Your task to perform on an android device: add a contact Image 0: 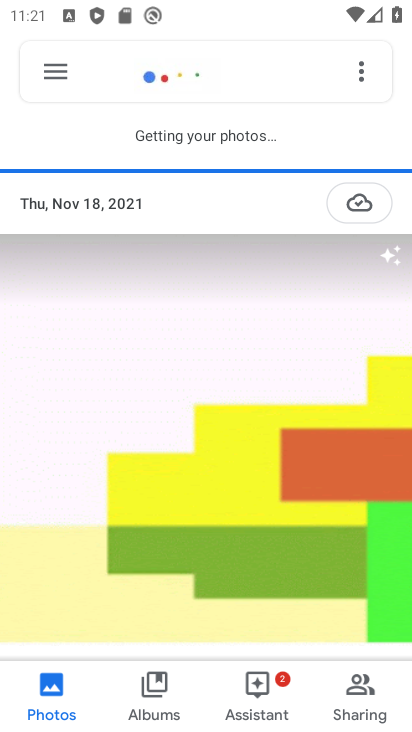
Step 0: press home button
Your task to perform on an android device: add a contact Image 1: 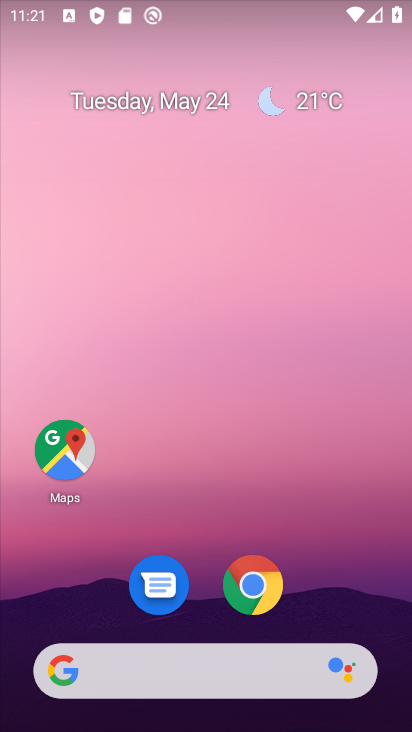
Step 1: drag from (224, 514) to (223, 2)
Your task to perform on an android device: add a contact Image 2: 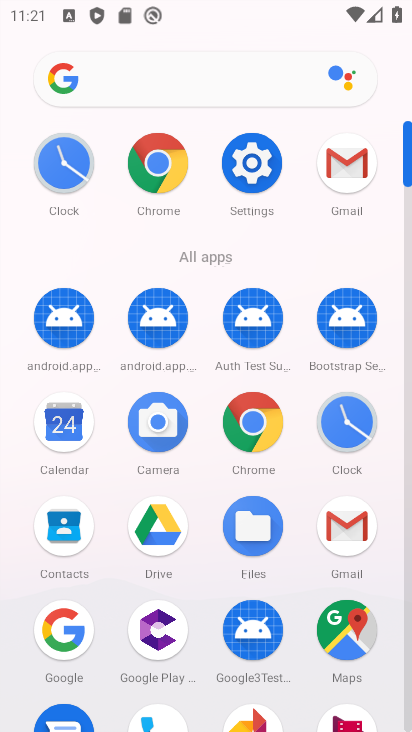
Step 2: click (65, 523)
Your task to perform on an android device: add a contact Image 3: 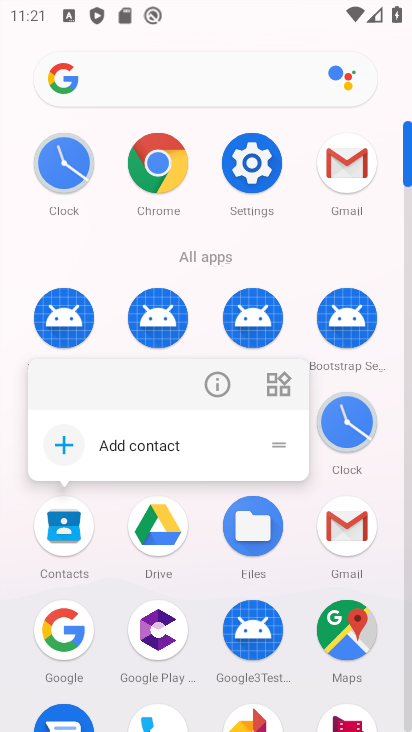
Step 3: click (65, 523)
Your task to perform on an android device: add a contact Image 4: 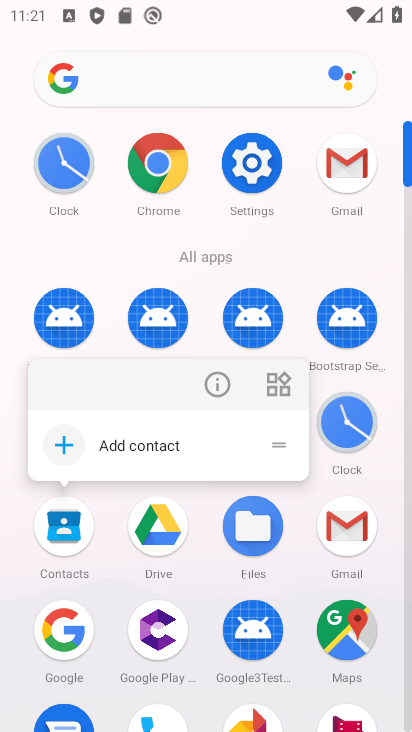
Step 4: click (65, 523)
Your task to perform on an android device: add a contact Image 5: 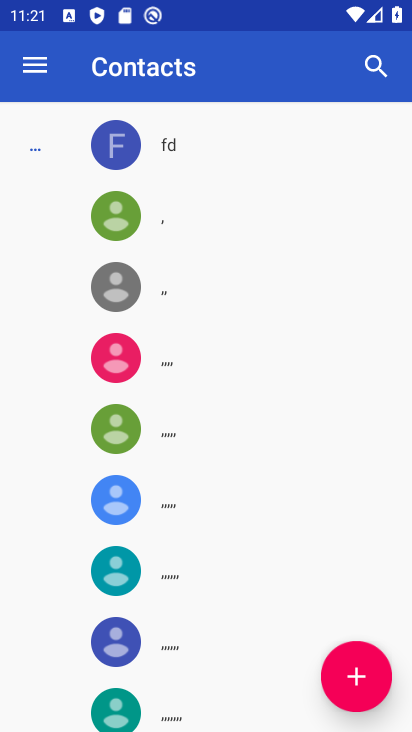
Step 5: click (373, 673)
Your task to perform on an android device: add a contact Image 6: 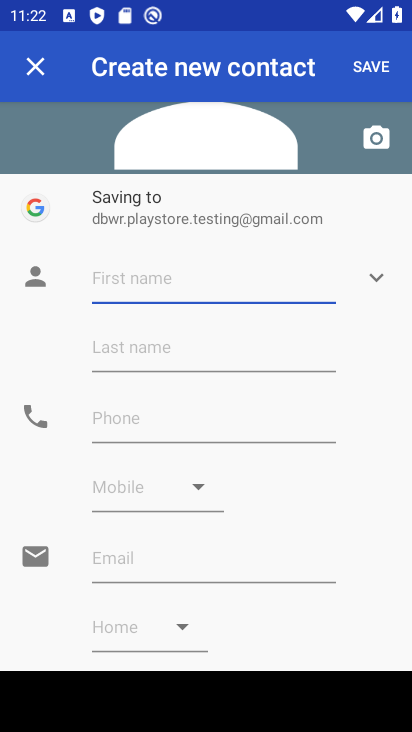
Step 6: type "Sumant Vidur"
Your task to perform on an android device: add a contact Image 7: 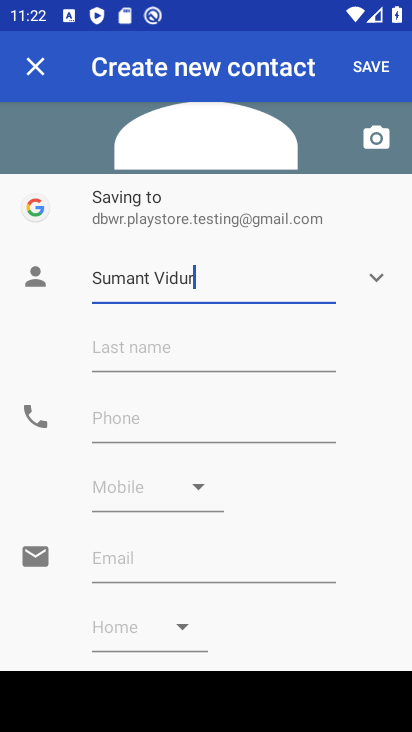
Step 7: click (227, 419)
Your task to perform on an android device: add a contact Image 8: 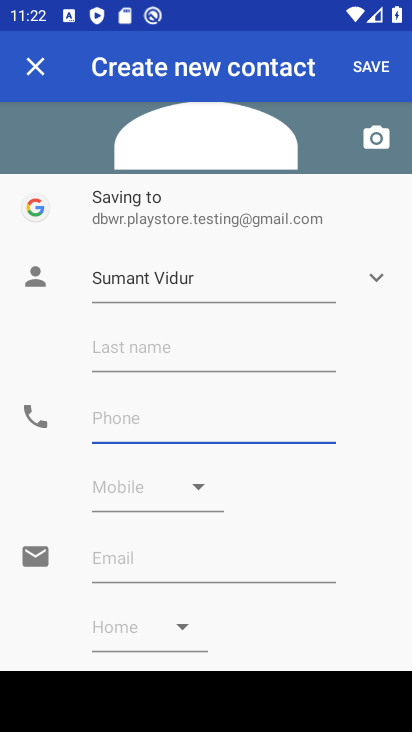
Step 8: type "011222334455"
Your task to perform on an android device: add a contact Image 9: 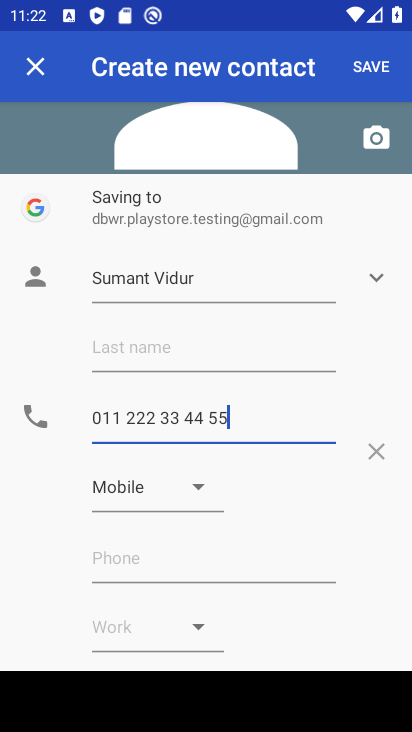
Step 9: click (375, 67)
Your task to perform on an android device: add a contact Image 10: 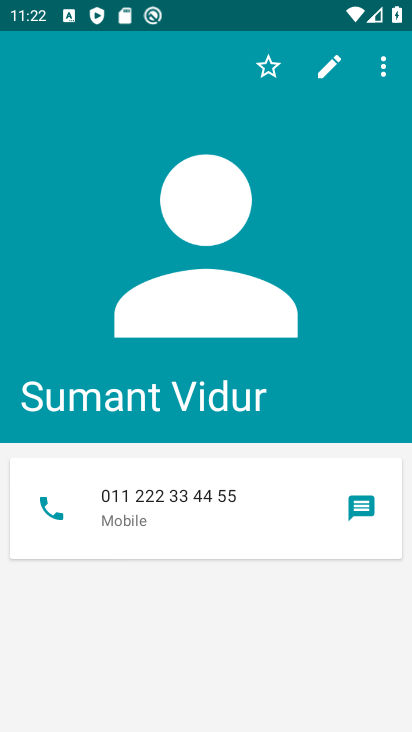
Step 10: task complete